Your task to perform on an android device: Show me popular games on the Play Store Image 0: 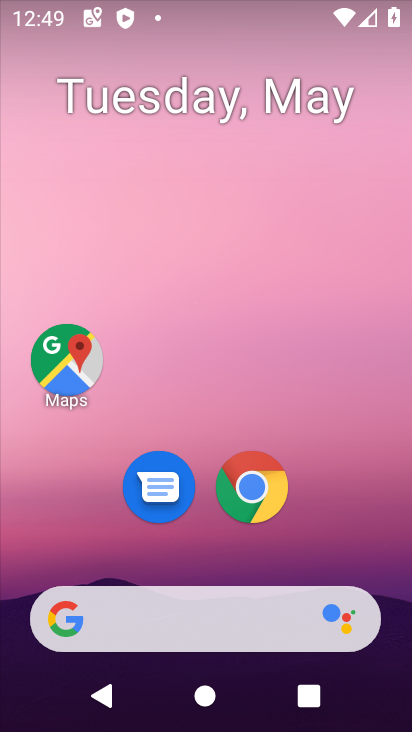
Step 0: drag from (321, 542) to (314, 97)
Your task to perform on an android device: Show me popular games on the Play Store Image 1: 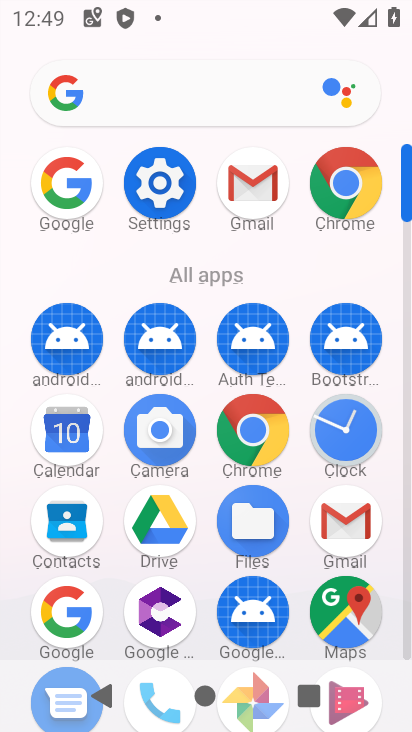
Step 1: drag from (287, 648) to (287, 319)
Your task to perform on an android device: Show me popular games on the Play Store Image 2: 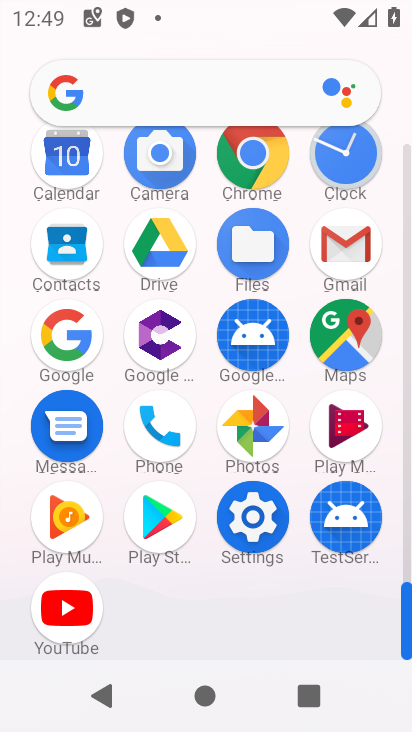
Step 2: click (166, 512)
Your task to perform on an android device: Show me popular games on the Play Store Image 3: 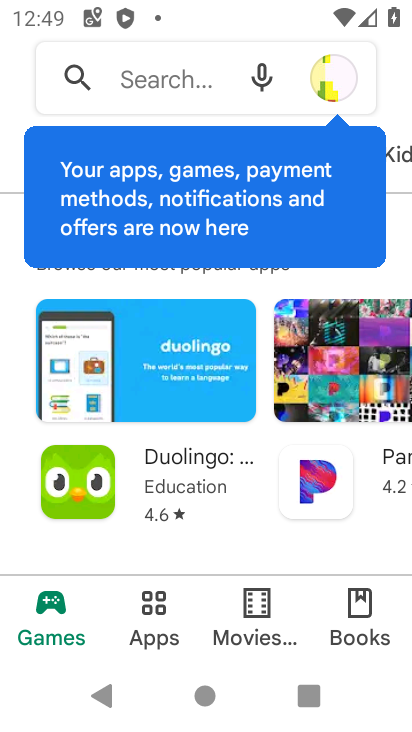
Step 3: click (173, 81)
Your task to perform on an android device: Show me popular games on the Play Store Image 4: 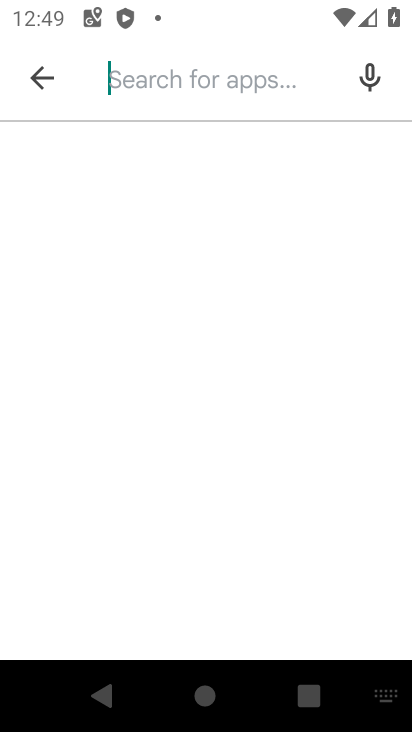
Step 4: type "popular games"
Your task to perform on an android device: Show me popular games on the Play Store Image 5: 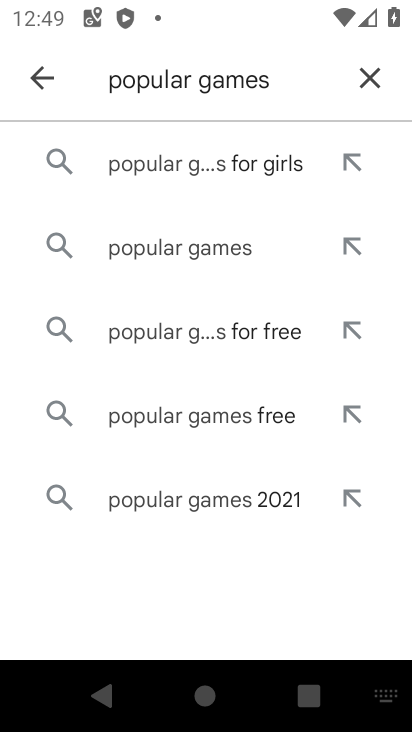
Step 5: click (228, 247)
Your task to perform on an android device: Show me popular games on the Play Store Image 6: 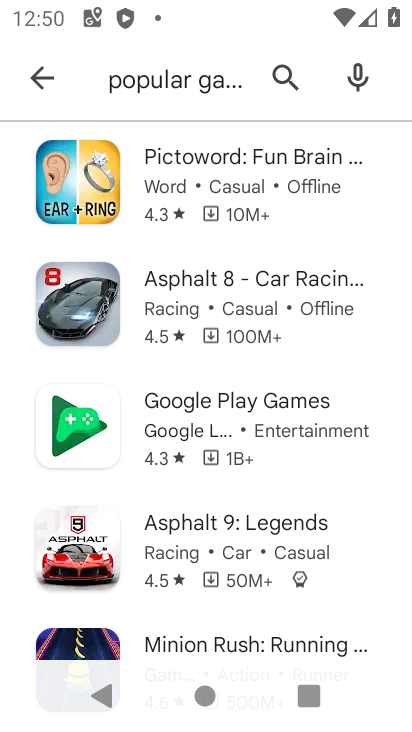
Step 6: task complete